Your task to perform on an android device: Open Chrome and go to settings Image 0: 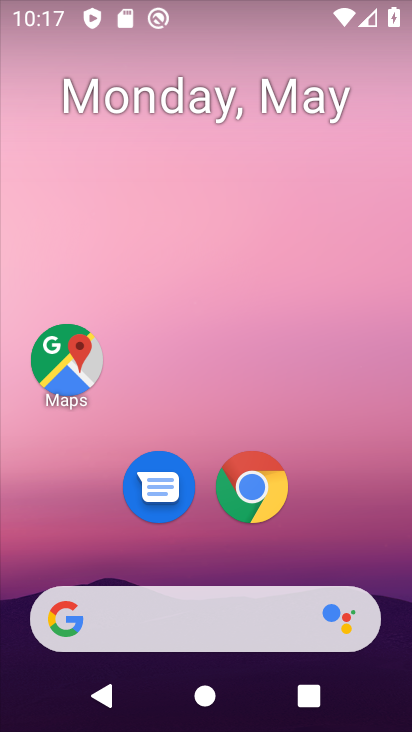
Step 0: drag from (374, 561) to (216, 51)
Your task to perform on an android device: Open Chrome and go to settings Image 1: 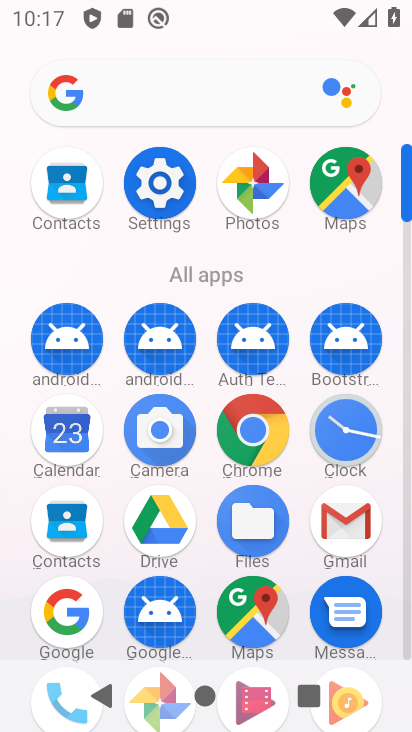
Step 1: click (236, 443)
Your task to perform on an android device: Open Chrome and go to settings Image 2: 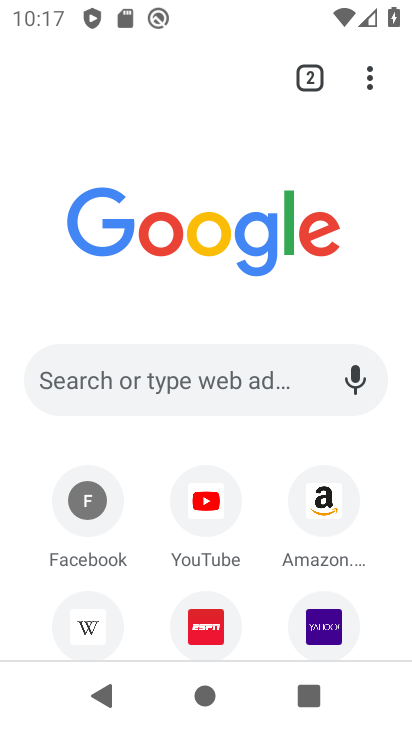
Step 2: click (367, 75)
Your task to perform on an android device: Open Chrome and go to settings Image 3: 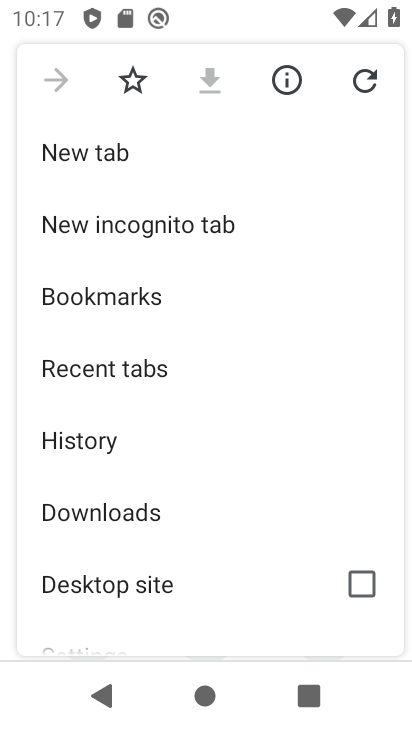
Step 3: drag from (342, 491) to (314, 404)
Your task to perform on an android device: Open Chrome and go to settings Image 4: 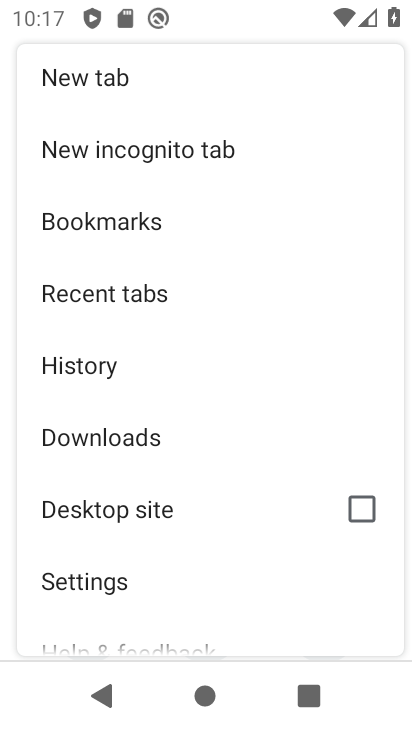
Step 4: drag from (293, 476) to (282, 417)
Your task to perform on an android device: Open Chrome and go to settings Image 5: 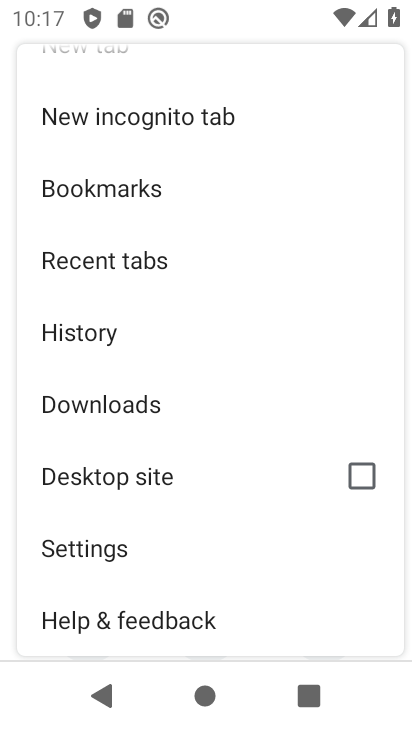
Step 5: drag from (273, 483) to (164, 243)
Your task to perform on an android device: Open Chrome and go to settings Image 6: 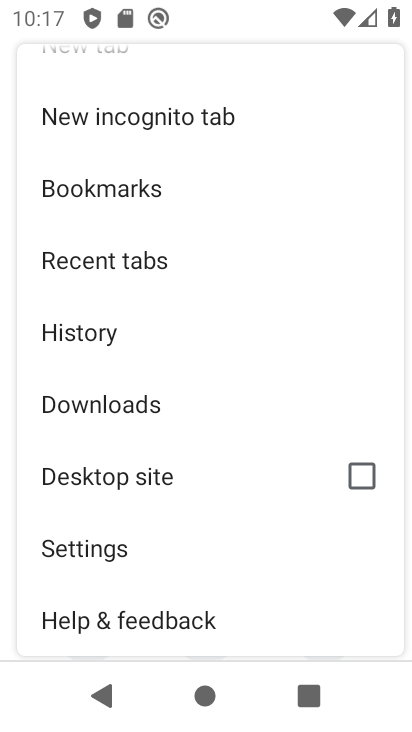
Step 6: click (97, 541)
Your task to perform on an android device: Open Chrome and go to settings Image 7: 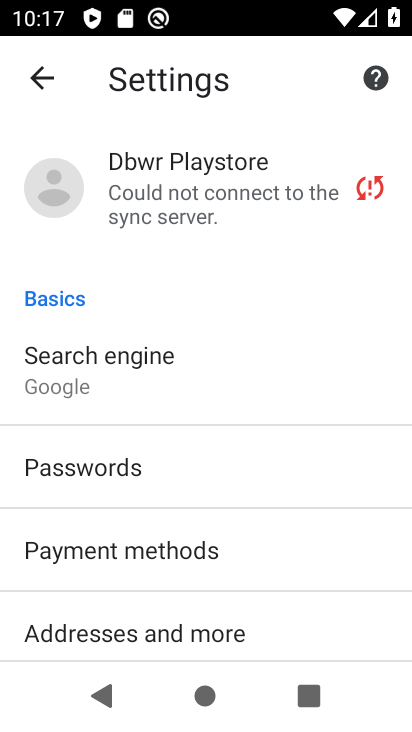
Step 7: task complete